Your task to perform on an android device: toggle notification dots Image 0: 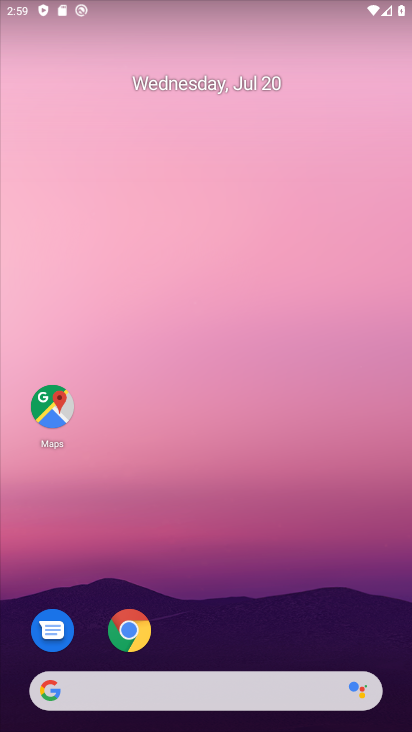
Step 0: drag from (276, 680) to (182, 142)
Your task to perform on an android device: toggle notification dots Image 1: 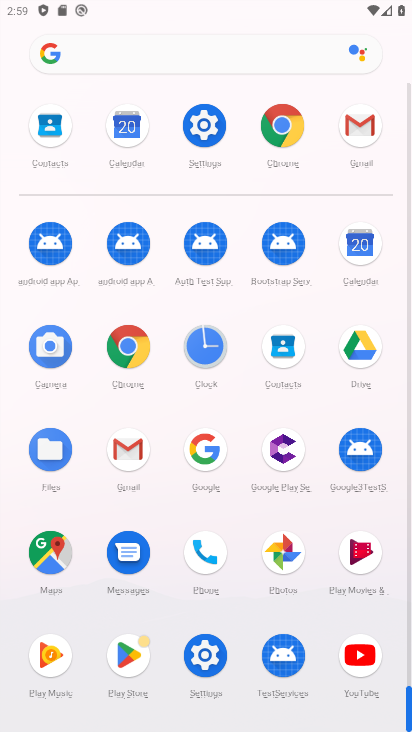
Step 1: click (201, 131)
Your task to perform on an android device: toggle notification dots Image 2: 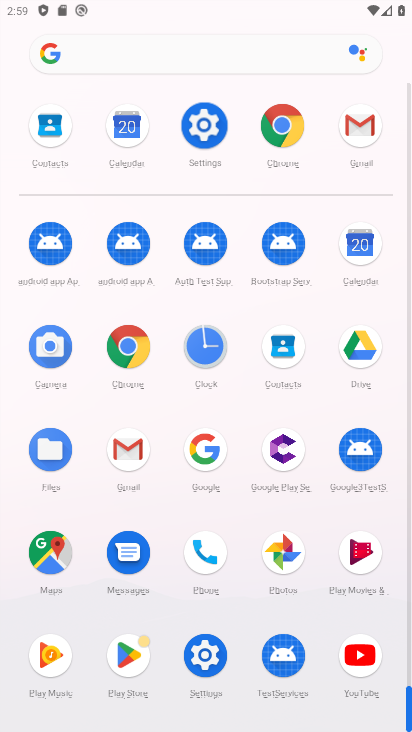
Step 2: click (202, 130)
Your task to perform on an android device: toggle notification dots Image 3: 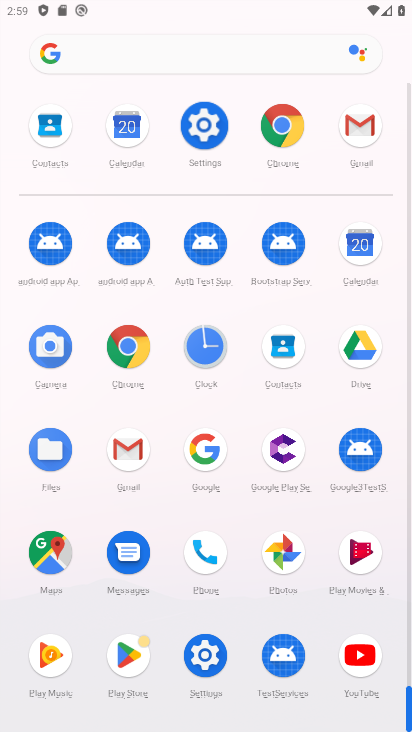
Step 3: click (204, 130)
Your task to perform on an android device: toggle notification dots Image 4: 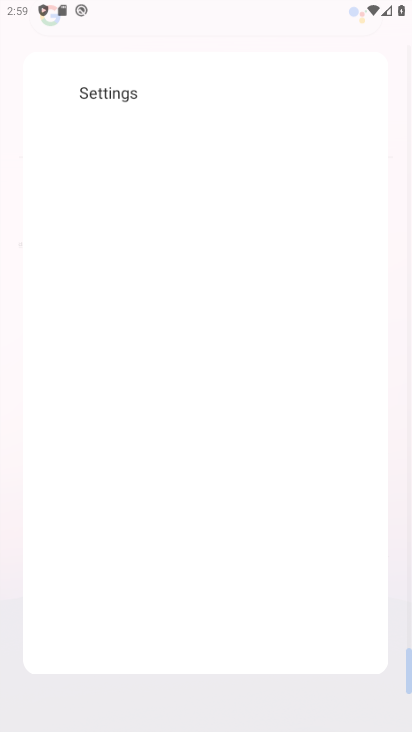
Step 4: click (207, 130)
Your task to perform on an android device: toggle notification dots Image 5: 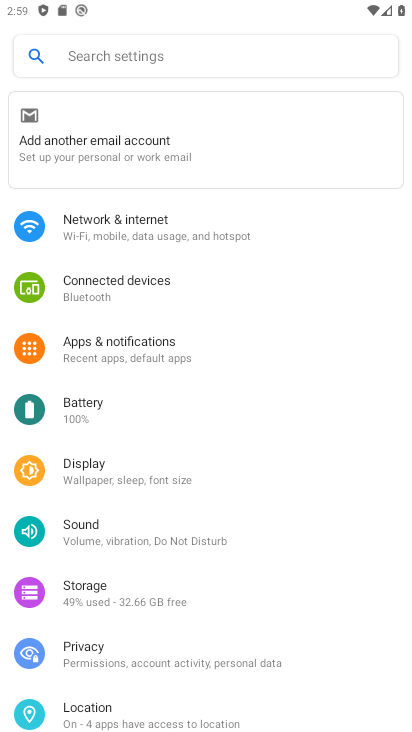
Step 5: click (99, 353)
Your task to perform on an android device: toggle notification dots Image 6: 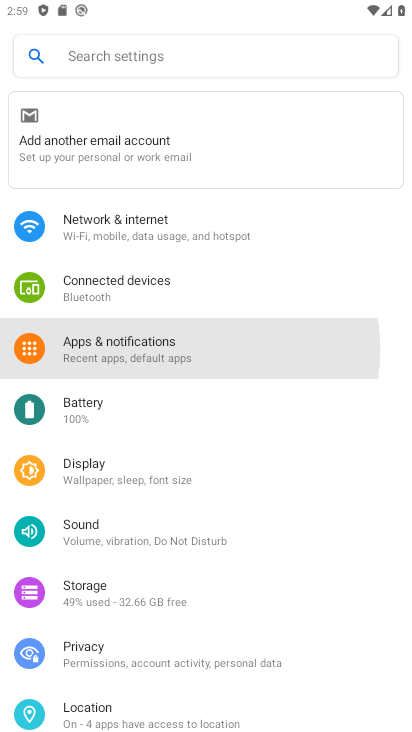
Step 6: click (103, 353)
Your task to perform on an android device: toggle notification dots Image 7: 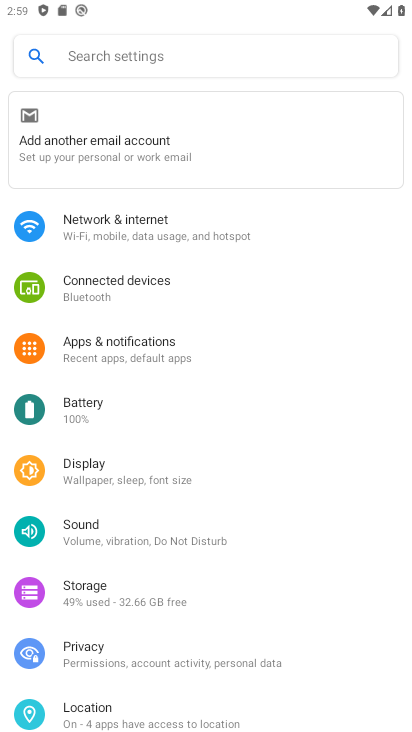
Step 7: click (105, 353)
Your task to perform on an android device: toggle notification dots Image 8: 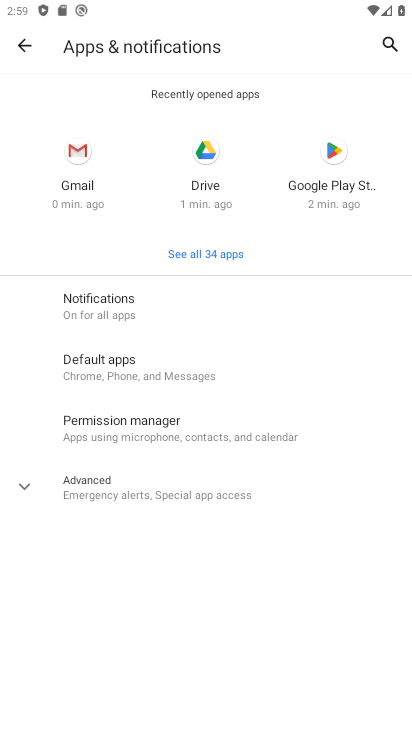
Step 8: click (99, 302)
Your task to perform on an android device: toggle notification dots Image 9: 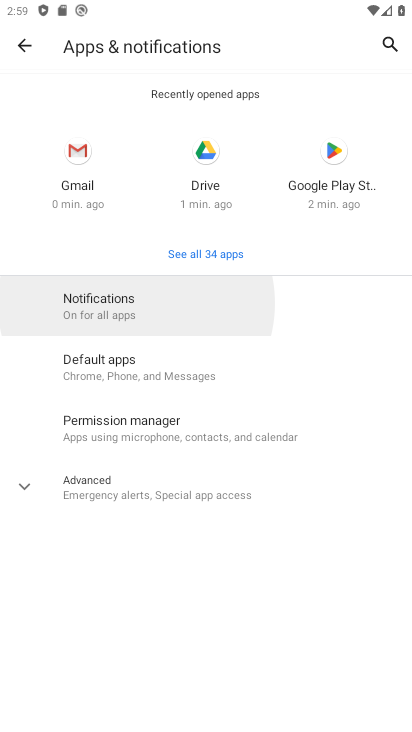
Step 9: click (99, 302)
Your task to perform on an android device: toggle notification dots Image 10: 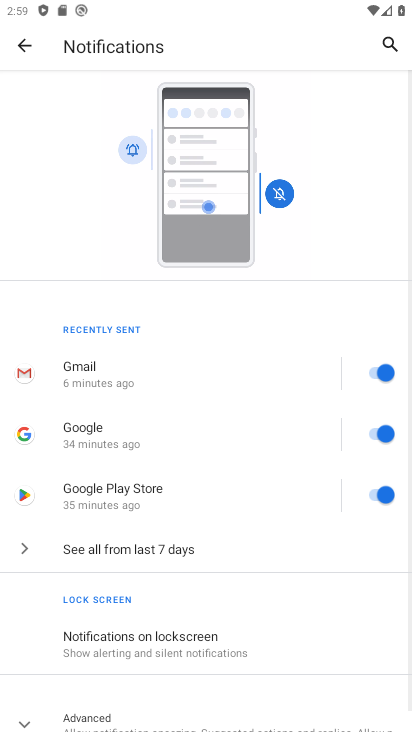
Step 10: drag from (130, 640) to (134, 268)
Your task to perform on an android device: toggle notification dots Image 11: 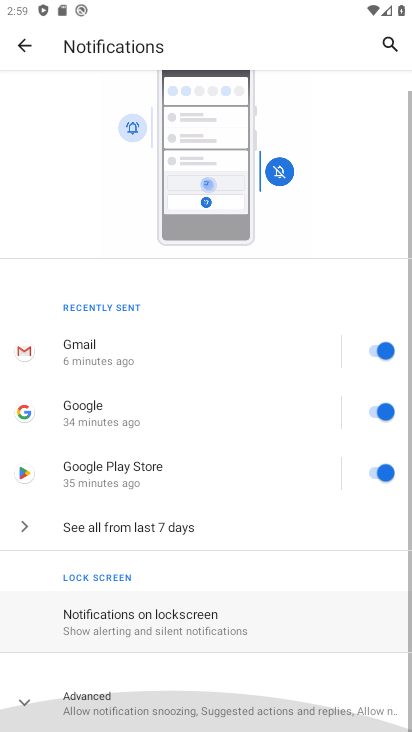
Step 11: drag from (176, 638) to (201, 239)
Your task to perform on an android device: toggle notification dots Image 12: 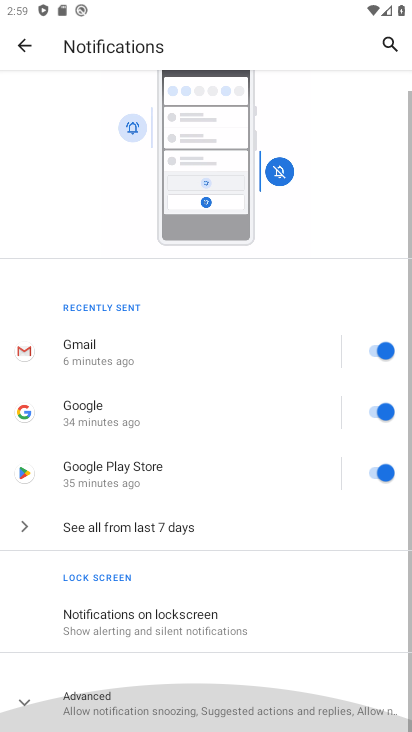
Step 12: drag from (202, 629) to (200, 360)
Your task to perform on an android device: toggle notification dots Image 13: 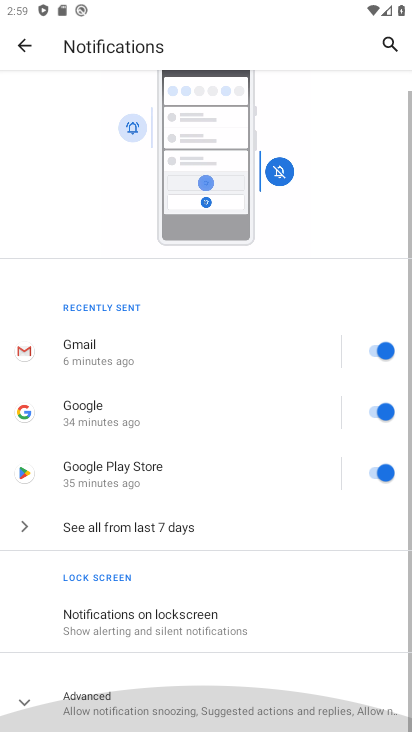
Step 13: drag from (165, 654) to (155, 389)
Your task to perform on an android device: toggle notification dots Image 14: 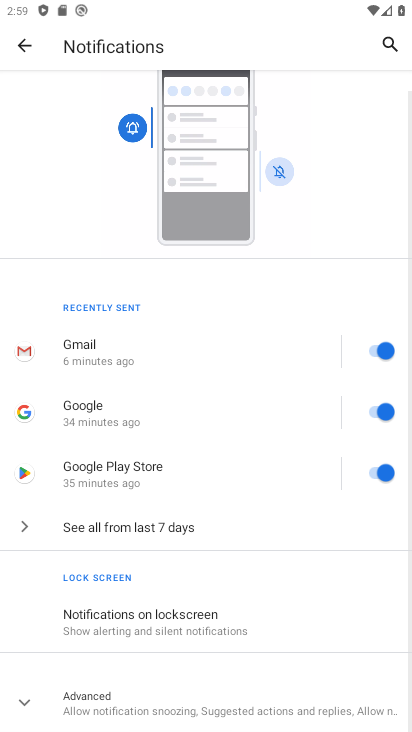
Step 14: click (83, 688)
Your task to perform on an android device: toggle notification dots Image 15: 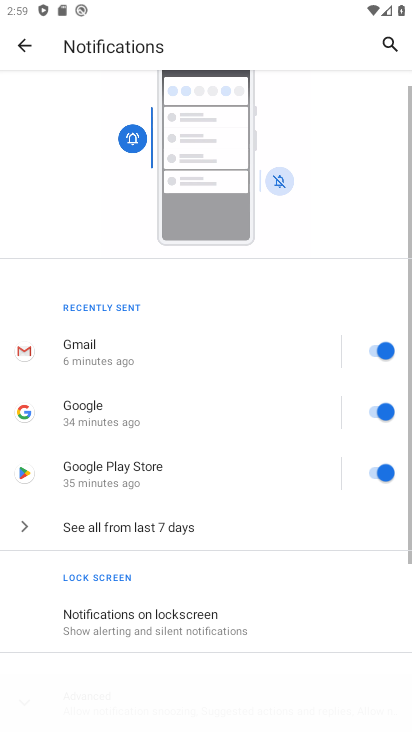
Step 15: click (85, 695)
Your task to perform on an android device: toggle notification dots Image 16: 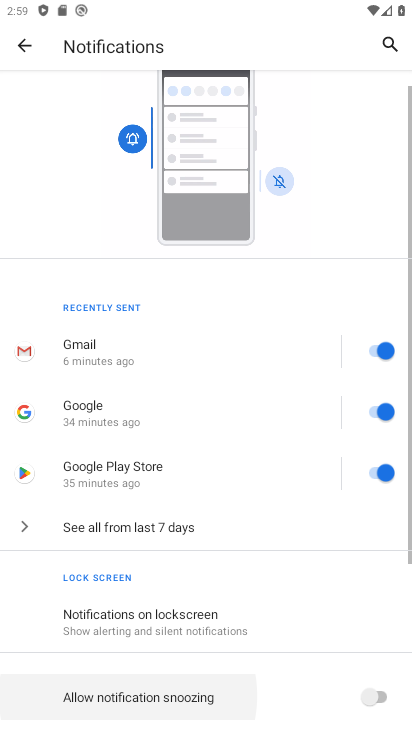
Step 16: click (88, 699)
Your task to perform on an android device: toggle notification dots Image 17: 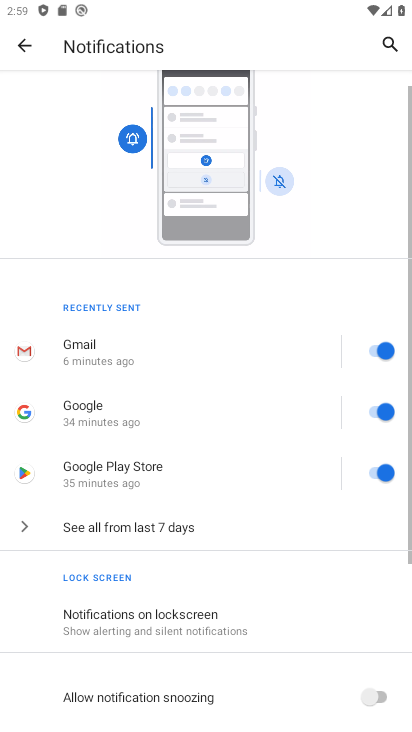
Step 17: click (158, 702)
Your task to perform on an android device: toggle notification dots Image 18: 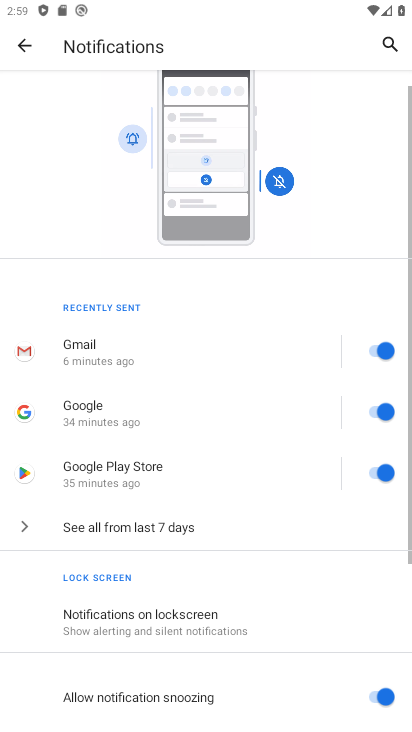
Step 18: drag from (256, 680) to (246, 386)
Your task to perform on an android device: toggle notification dots Image 19: 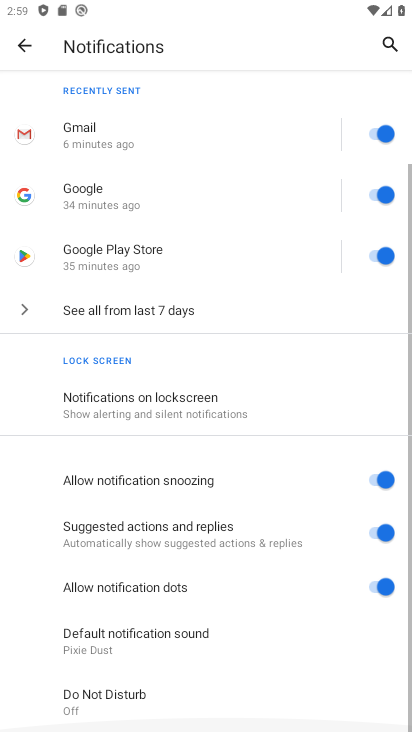
Step 19: drag from (207, 627) to (185, 448)
Your task to perform on an android device: toggle notification dots Image 20: 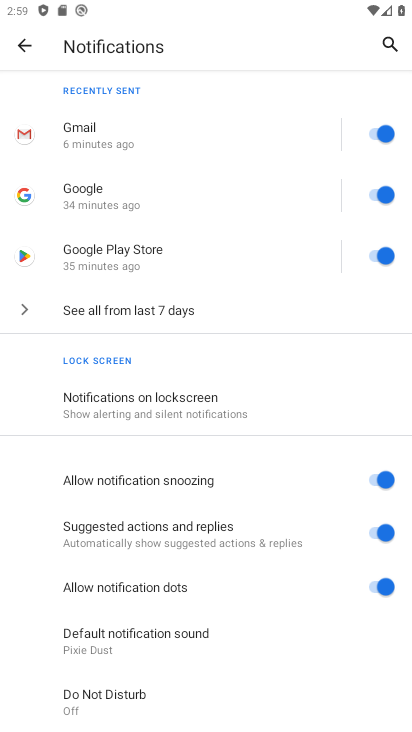
Step 20: click (390, 585)
Your task to perform on an android device: toggle notification dots Image 21: 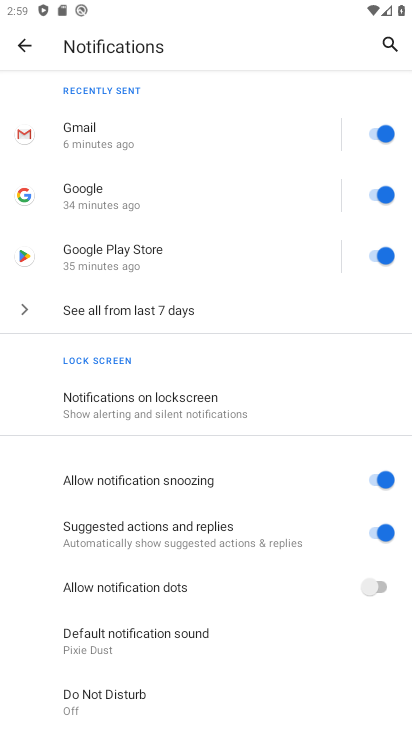
Step 21: task complete